Your task to perform on an android device: Open wifi settings Image 0: 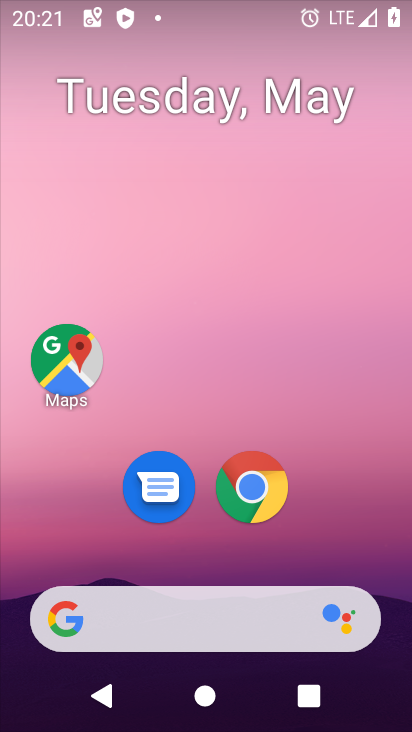
Step 0: drag from (331, 512) to (241, 30)
Your task to perform on an android device: Open wifi settings Image 1: 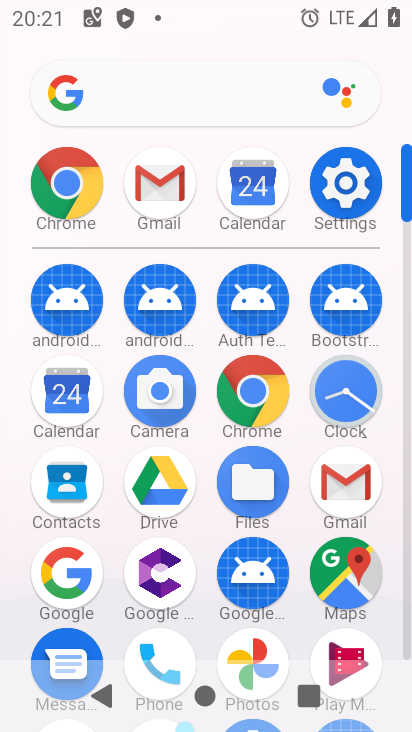
Step 1: click (339, 178)
Your task to perform on an android device: Open wifi settings Image 2: 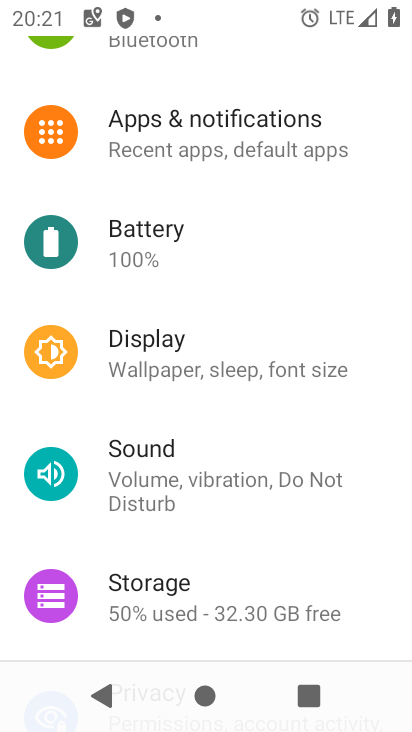
Step 2: drag from (221, 206) to (260, 718)
Your task to perform on an android device: Open wifi settings Image 3: 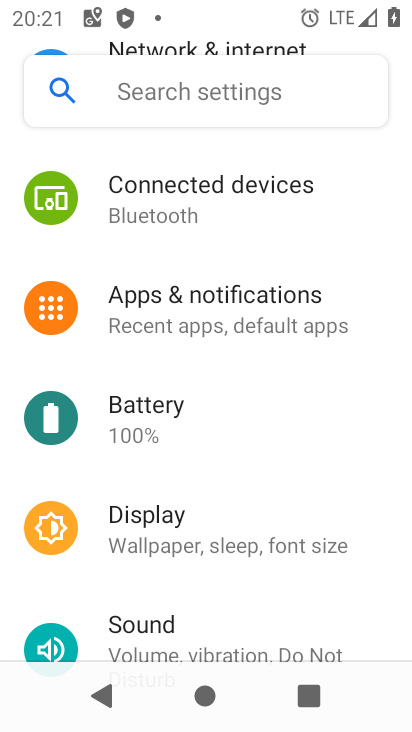
Step 3: drag from (209, 252) to (199, 726)
Your task to perform on an android device: Open wifi settings Image 4: 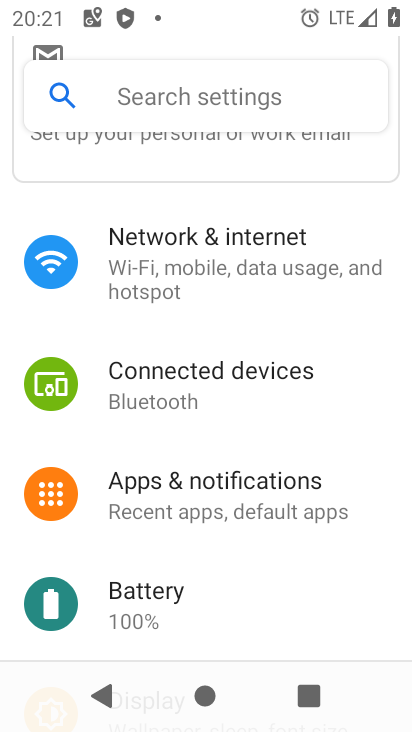
Step 4: click (178, 252)
Your task to perform on an android device: Open wifi settings Image 5: 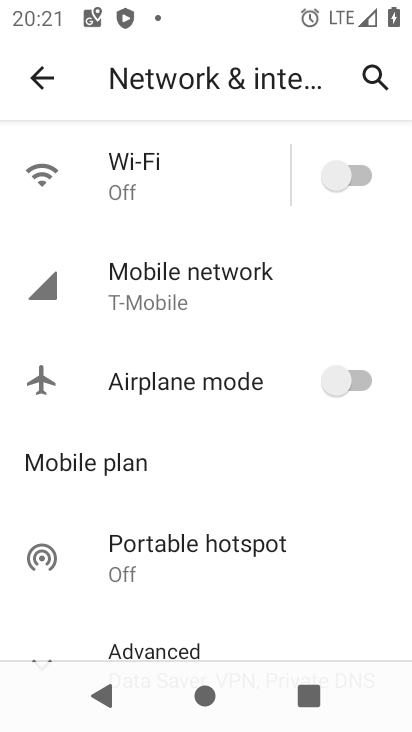
Step 5: click (146, 165)
Your task to perform on an android device: Open wifi settings Image 6: 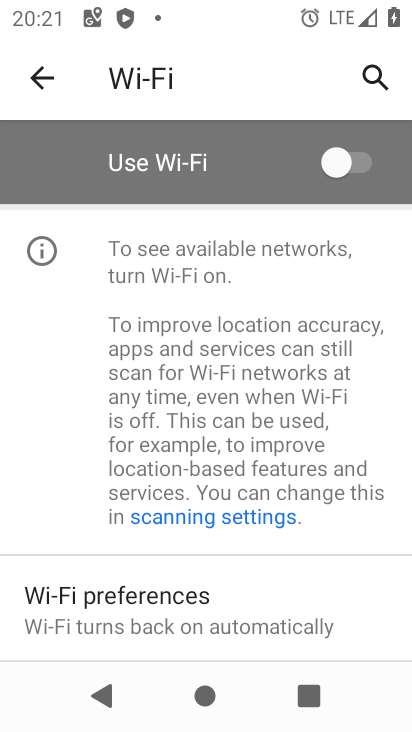
Step 6: task complete